Your task to perform on an android device: Go to CNN.com Image 0: 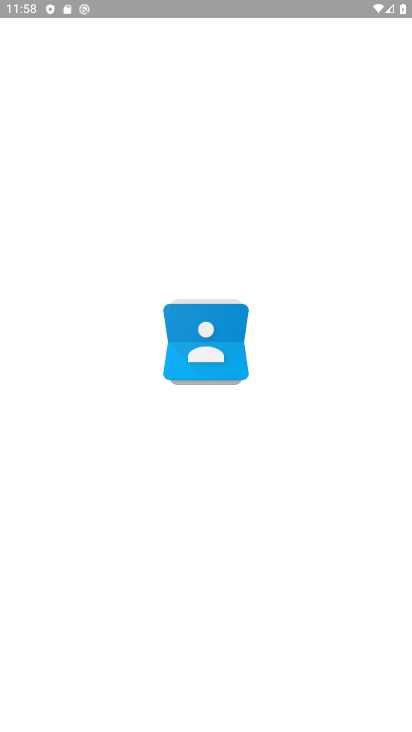
Step 0: drag from (211, 656) to (338, 6)
Your task to perform on an android device: Go to CNN.com Image 1: 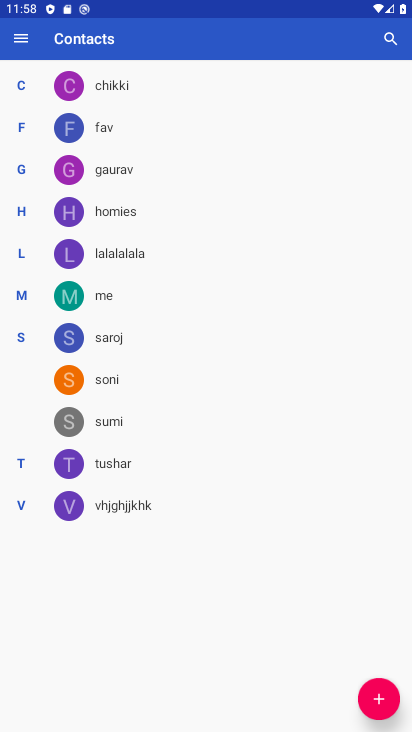
Step 1: press home button
Your task to perform on an android device: Go to CNN.com Image 2: 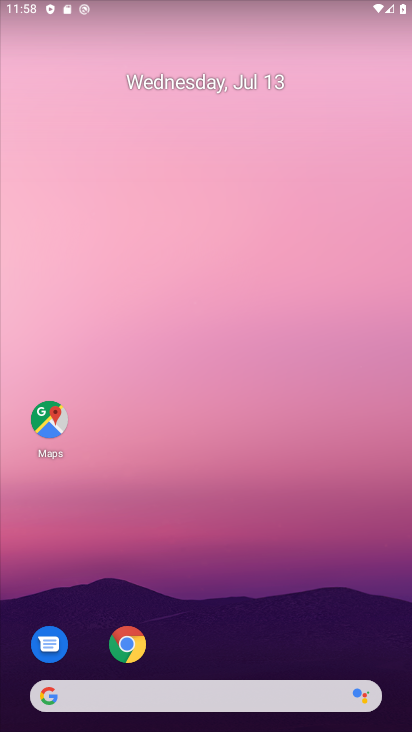
Step 2: click (136, 650)
Your task to perform on an android device: Go to CNN.com Image 3: 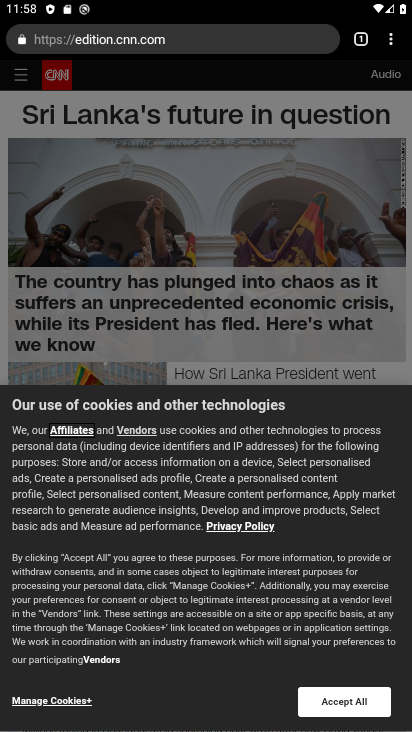
Step 3: click (344, 704)
Your task to perform on an android device: Go to CNN.com Image 4: 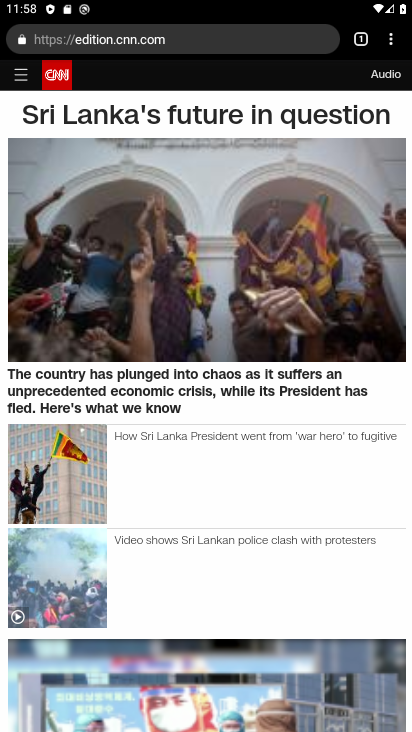
Step 4: task complete